Your task to perform on an android device: install app "Flipkart Online Shopping App" Image 0: 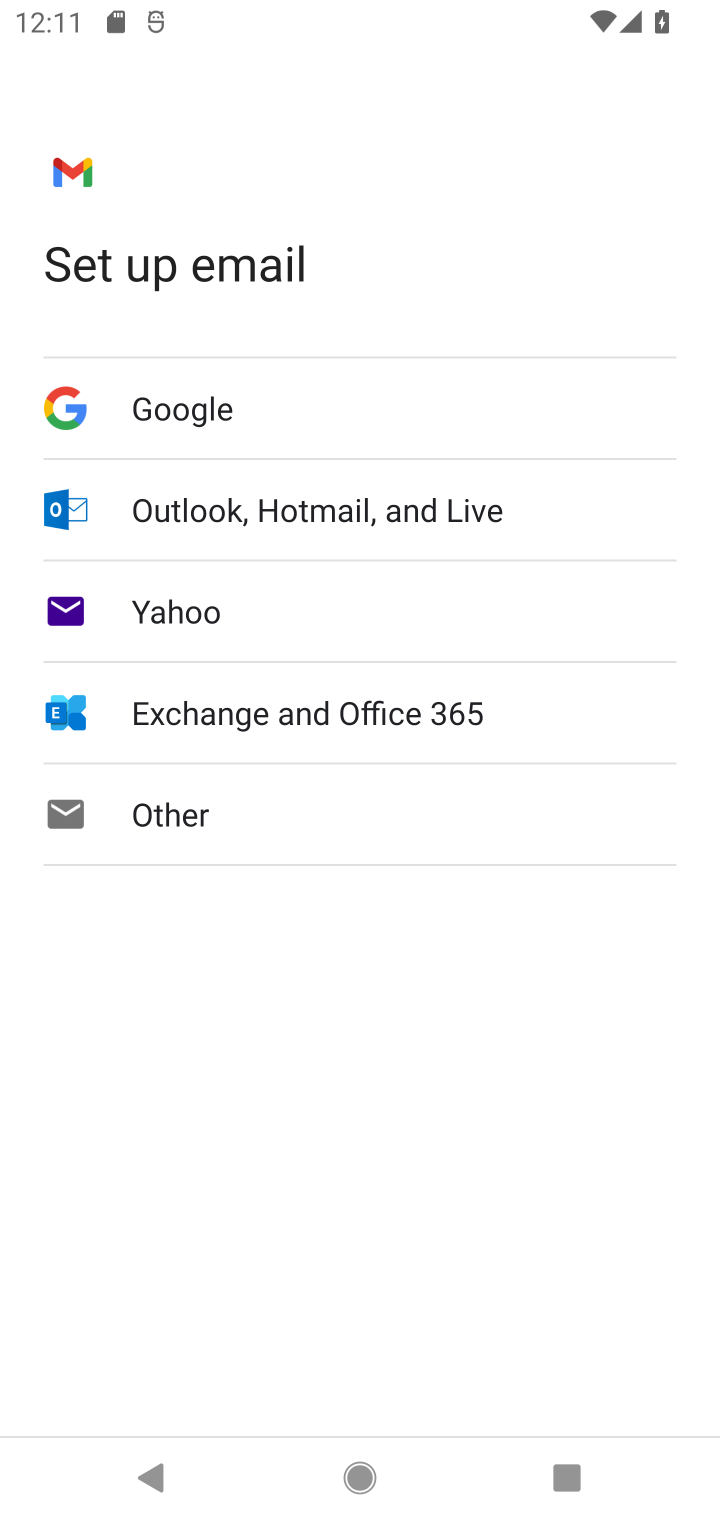
Step 0: press home button
Your task to perform on an android device: install app "Flipkart Online Shopping App" Image 1: 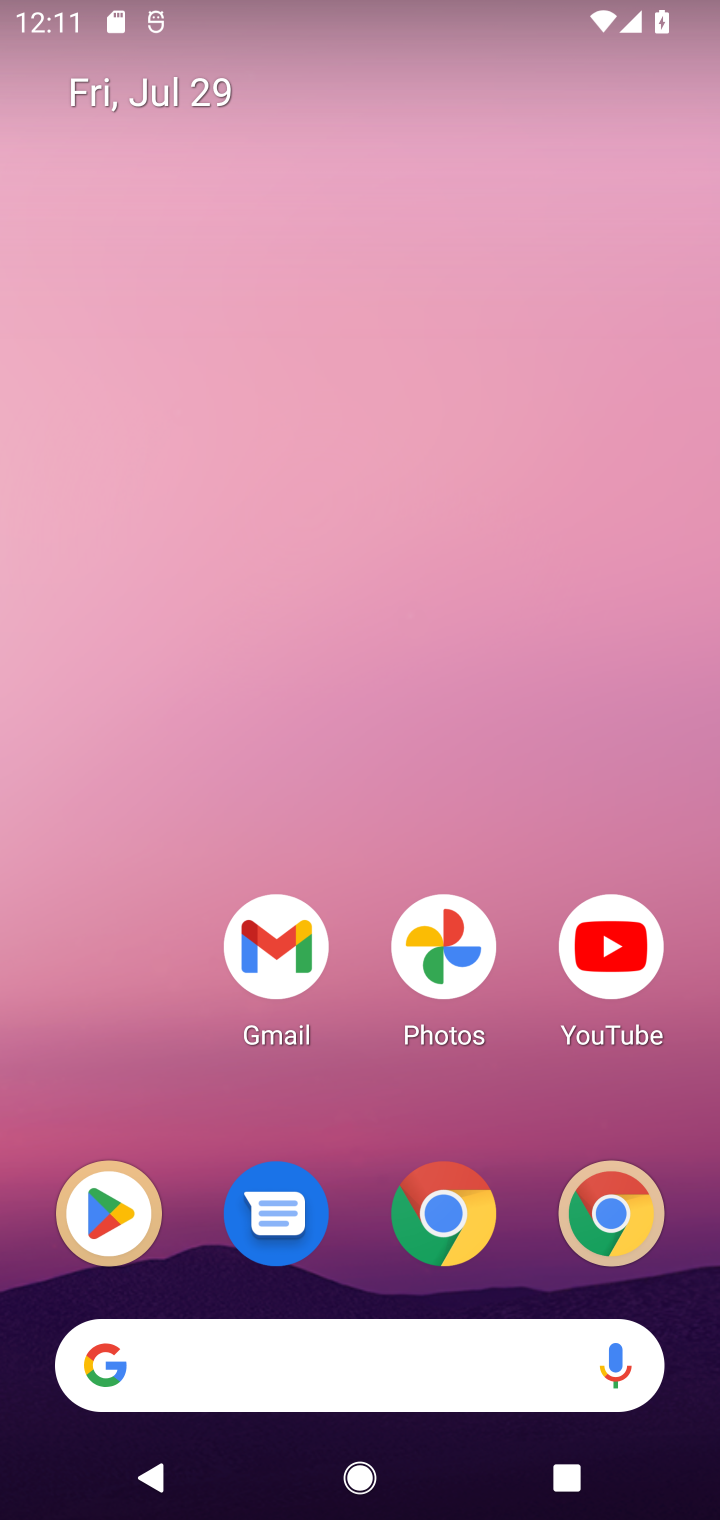
Step 1: drag from (444, 1495) to (444, 422)
Your task to perform on an android device: install app "Flipkart Online Shopping App" Image 2: 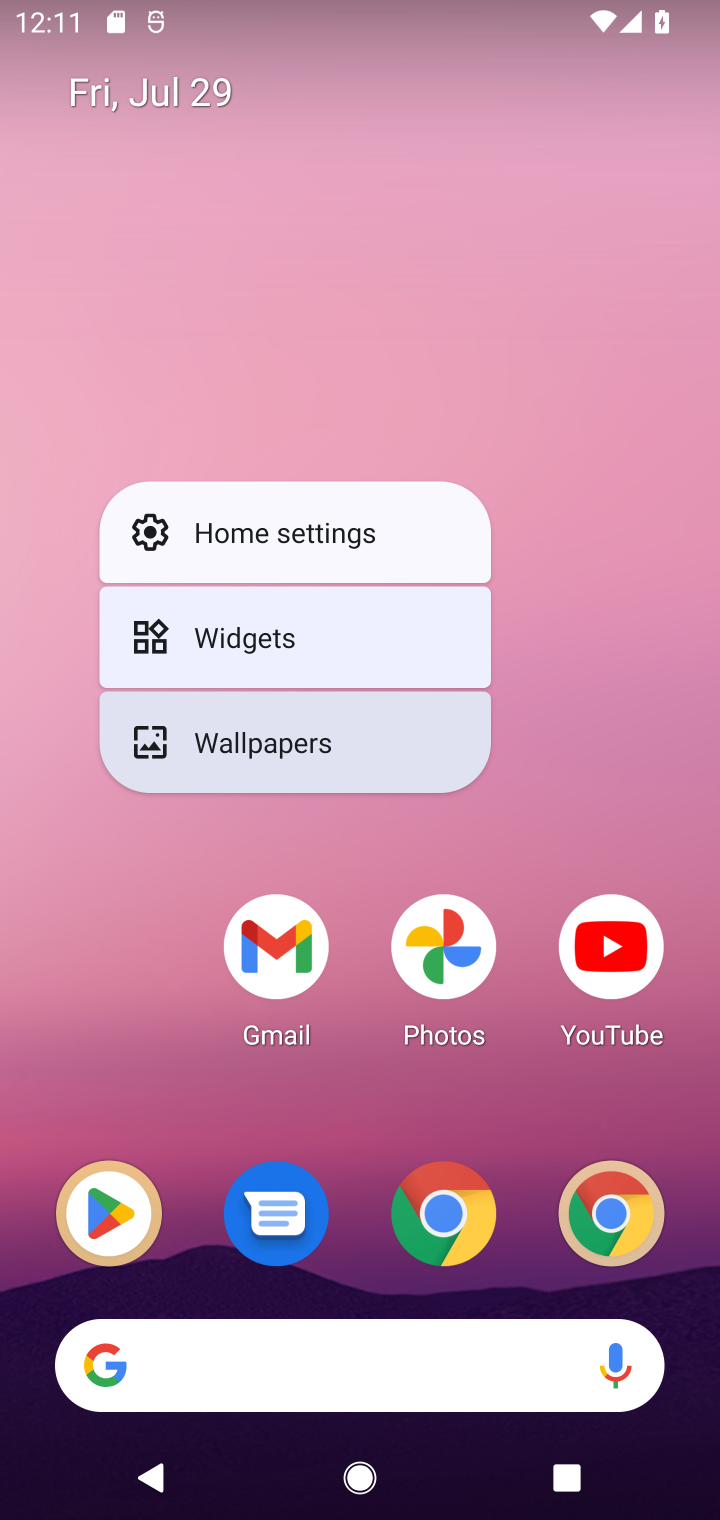
Step 2: click (562, 498)
Your task to perform on an android device: install app "Flipkart Online Shopping App" Image 3: 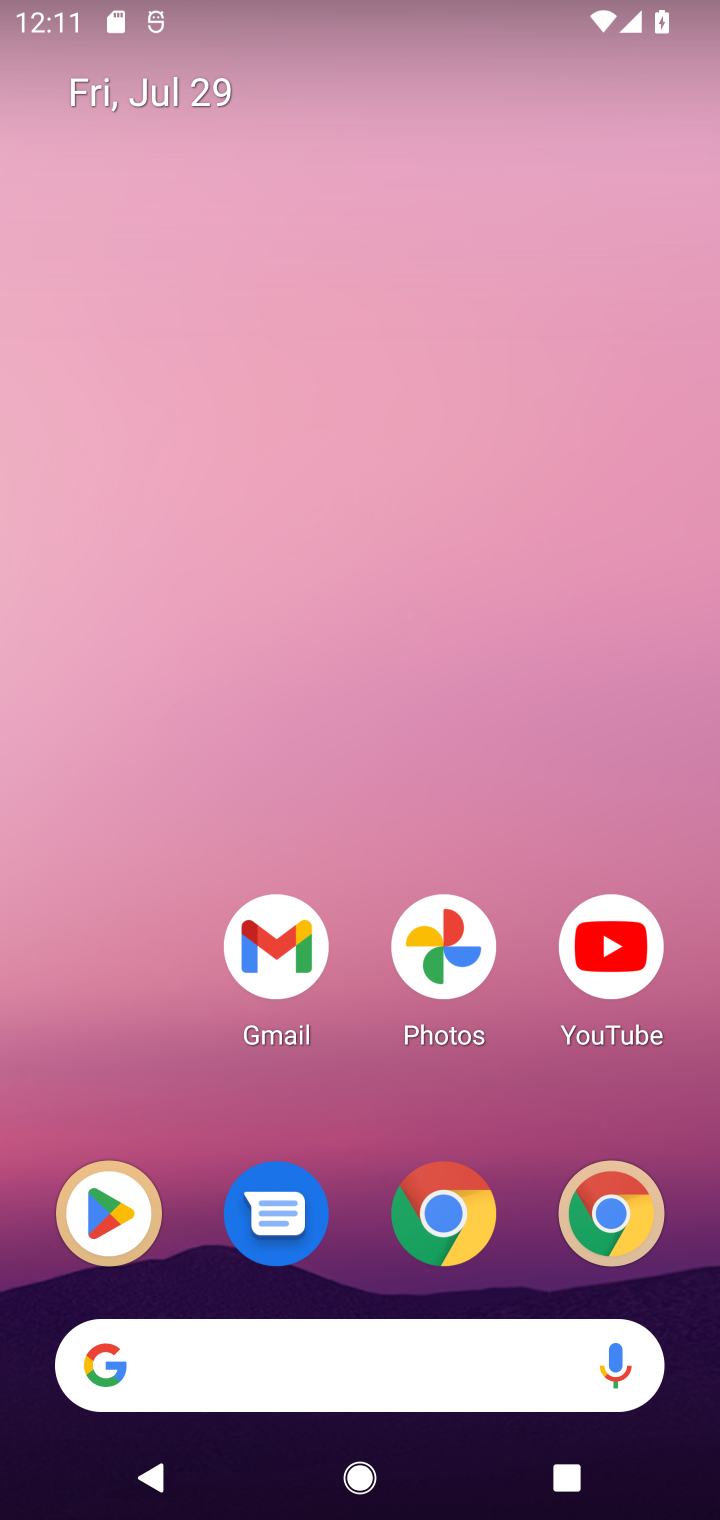
Step 3: drag from (409, 1375) to (409, 395)
Your task to perform on an android device: install app "Flipkart Online Shopping App" Image 4: 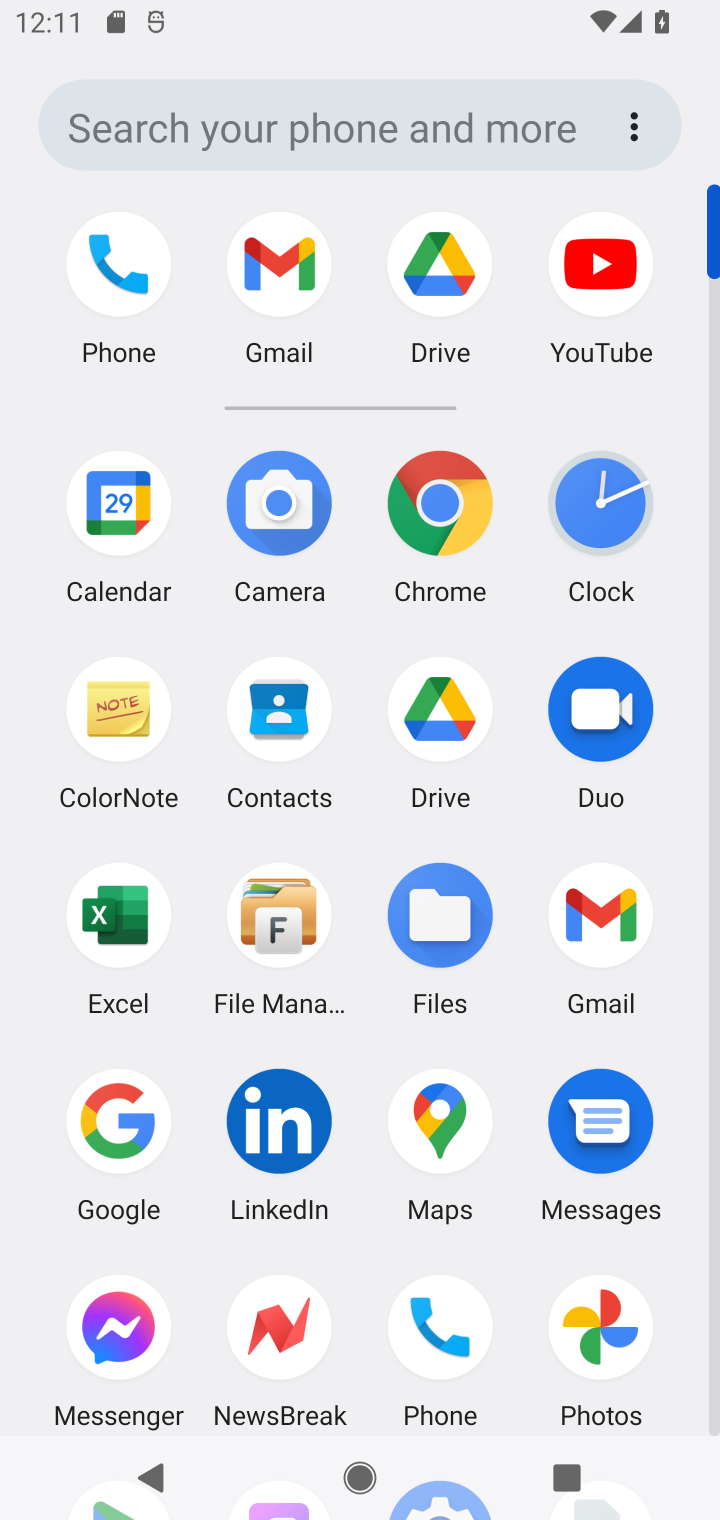
Step 4: click (88, 1485)
Your task to perform on an android device: install app "Flipkart Online Shopping App" Image 5: 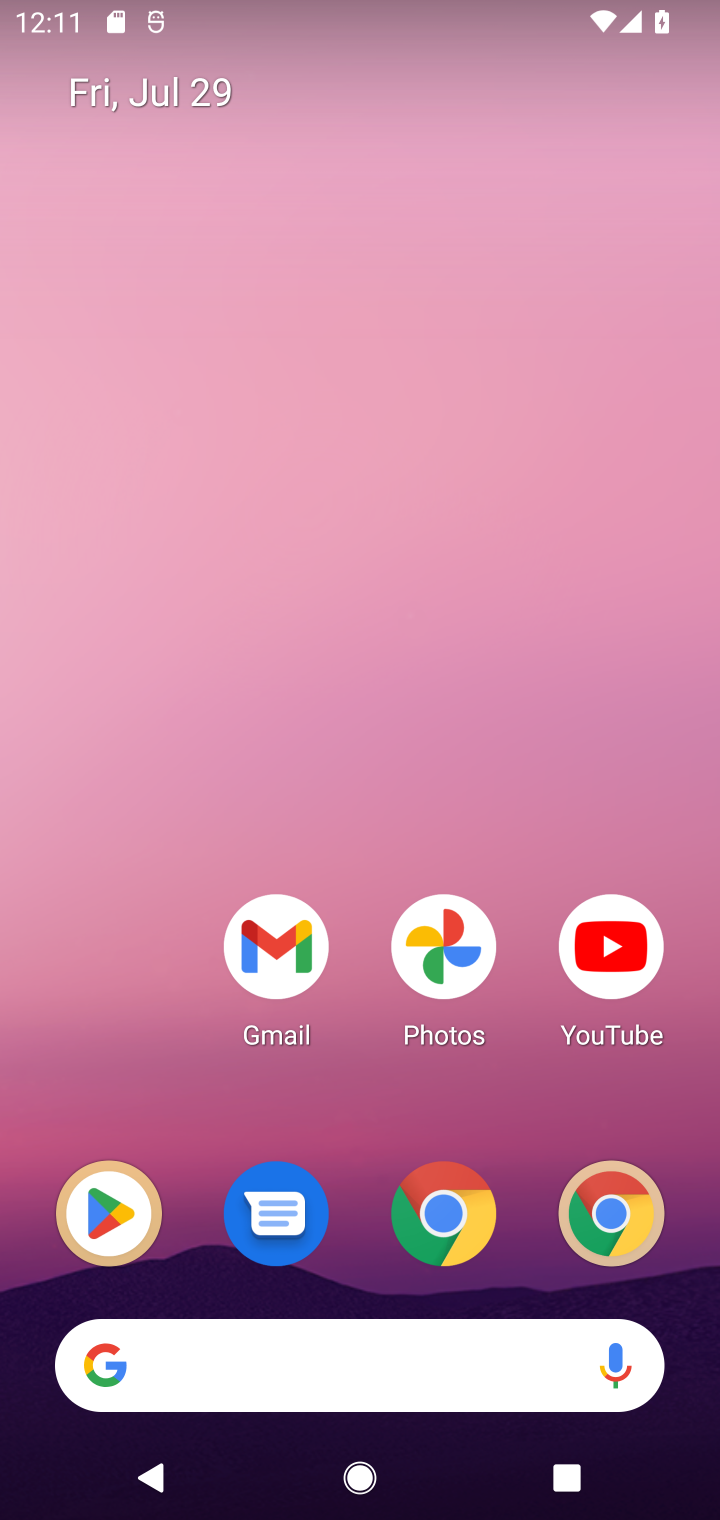
Step 5: click (413, 1425)
Your task to perform on an android device: install app "Flipkart Online Shopping App" Image 6: 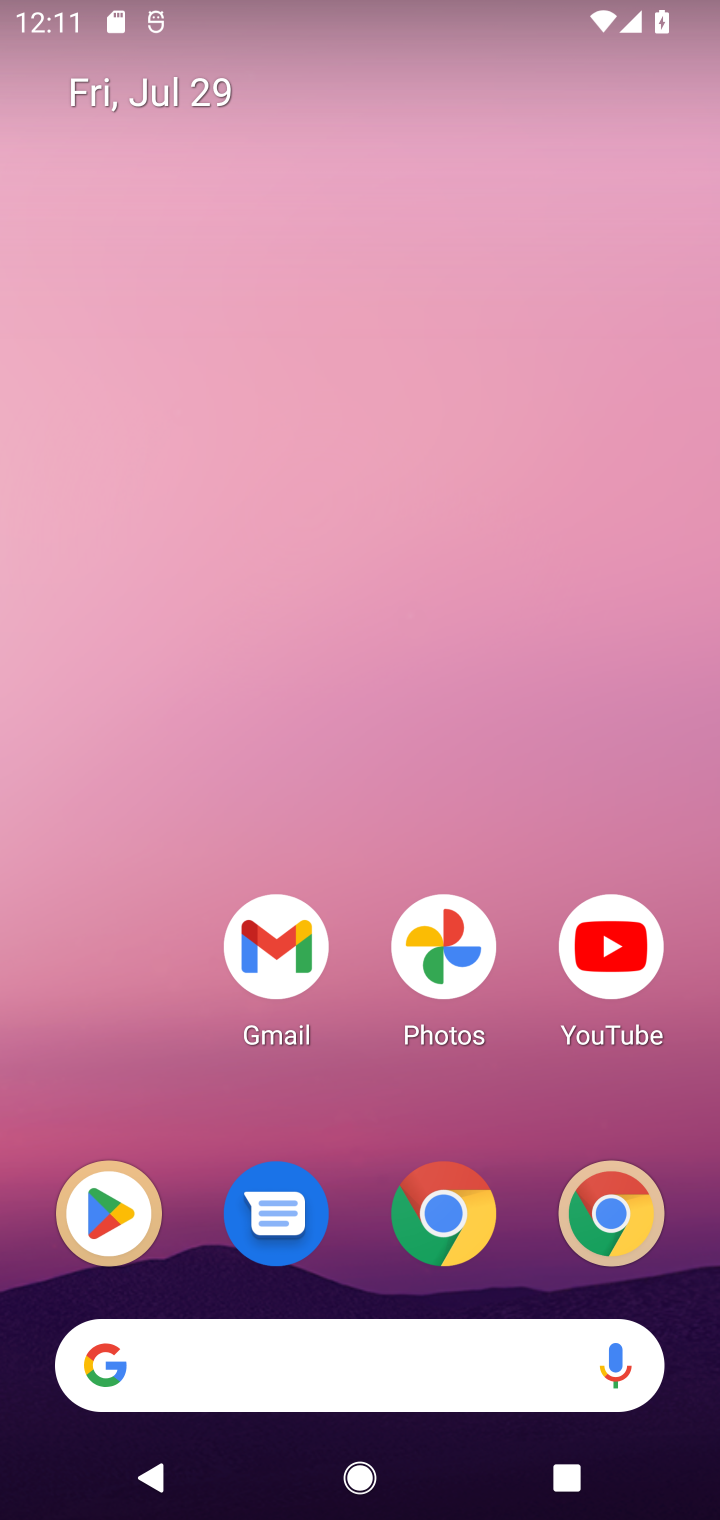
Step 6: drag from (410, 269) to (410, 159)
Your task to perform on an android device: install app "Flipkart Online Shopping App" Image 7: 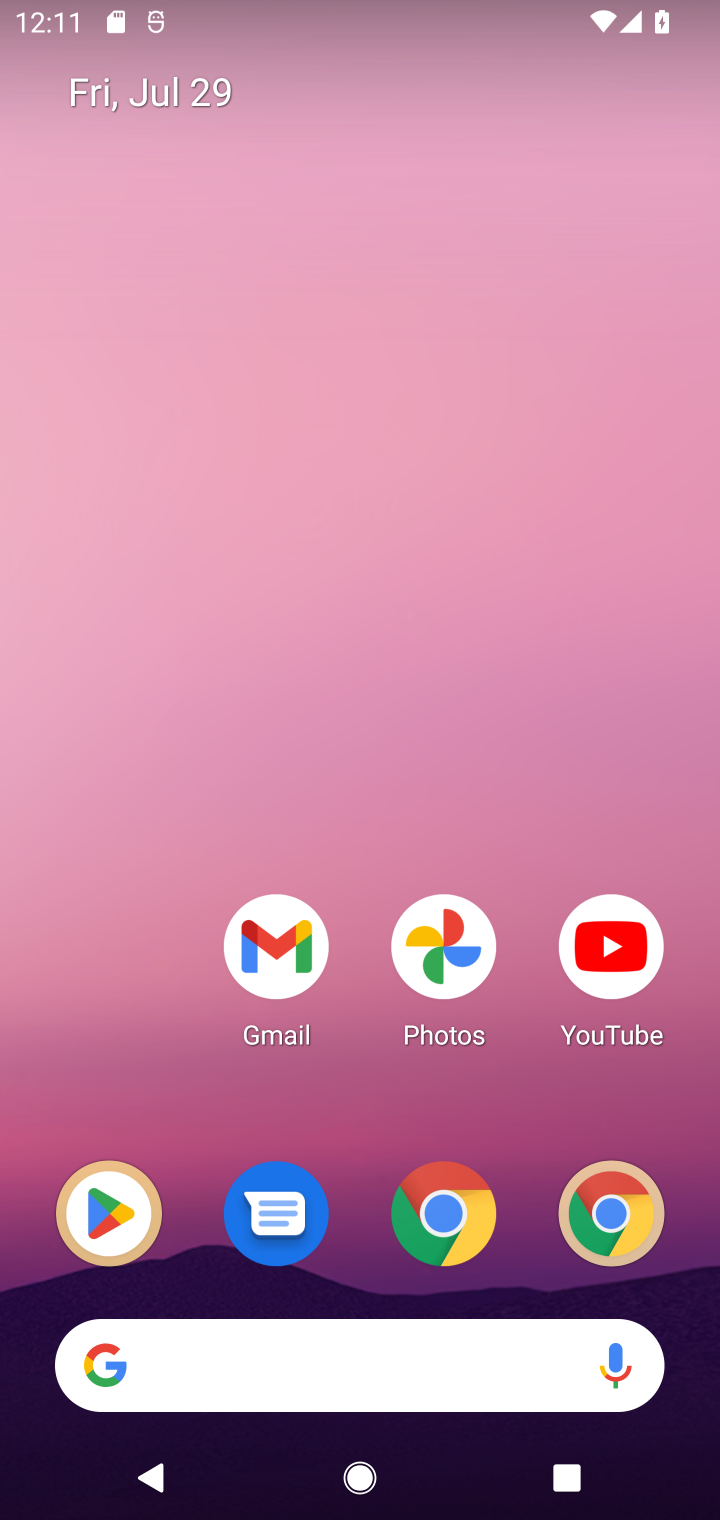
Step 7: drag from (412, 1295) to (366, 331)
Your task to perform on an android device: install app "Flipkart Online Shopping App" Image 8: 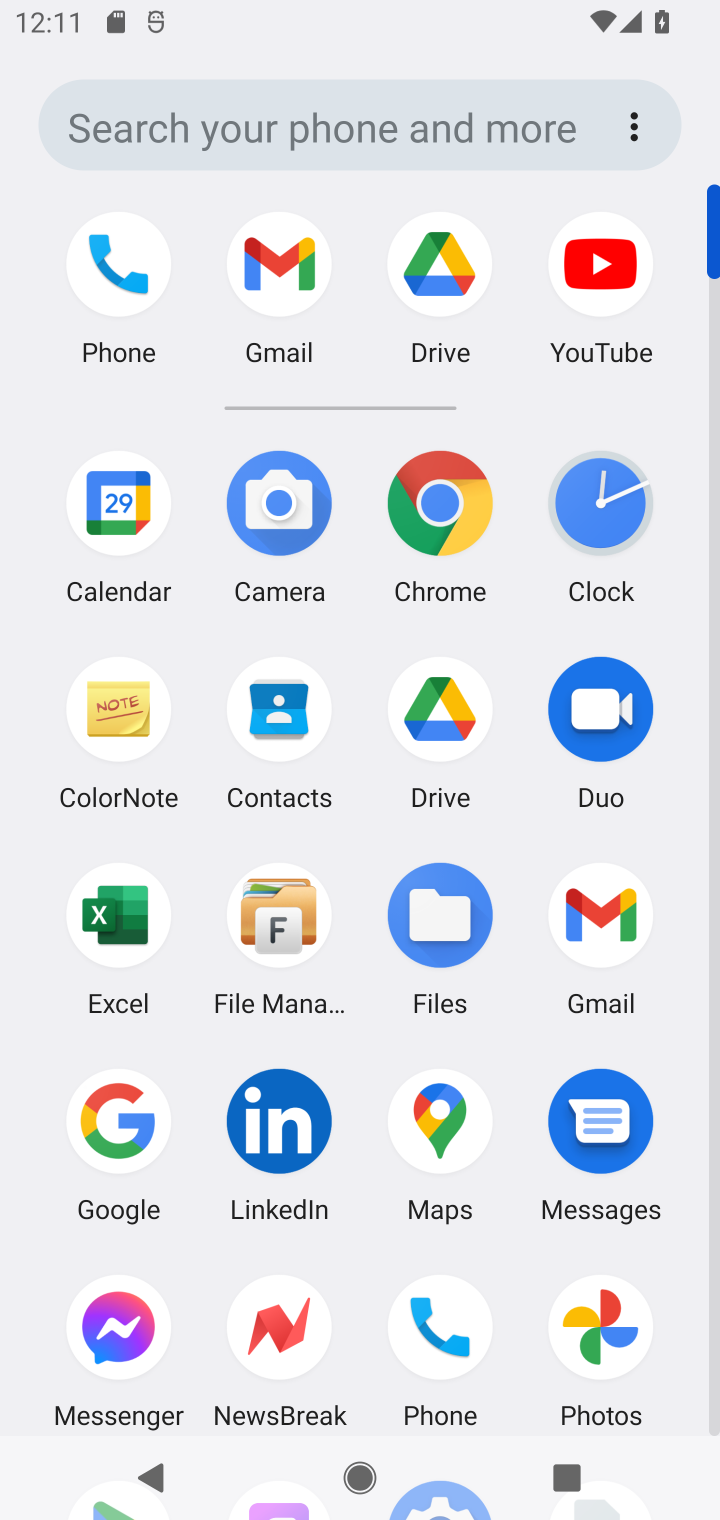
Step 8: drag from (367, 1276) to (357, 553)
Your task to perform on an android device: install app "Flipkart Online Shopping App" Image 9: 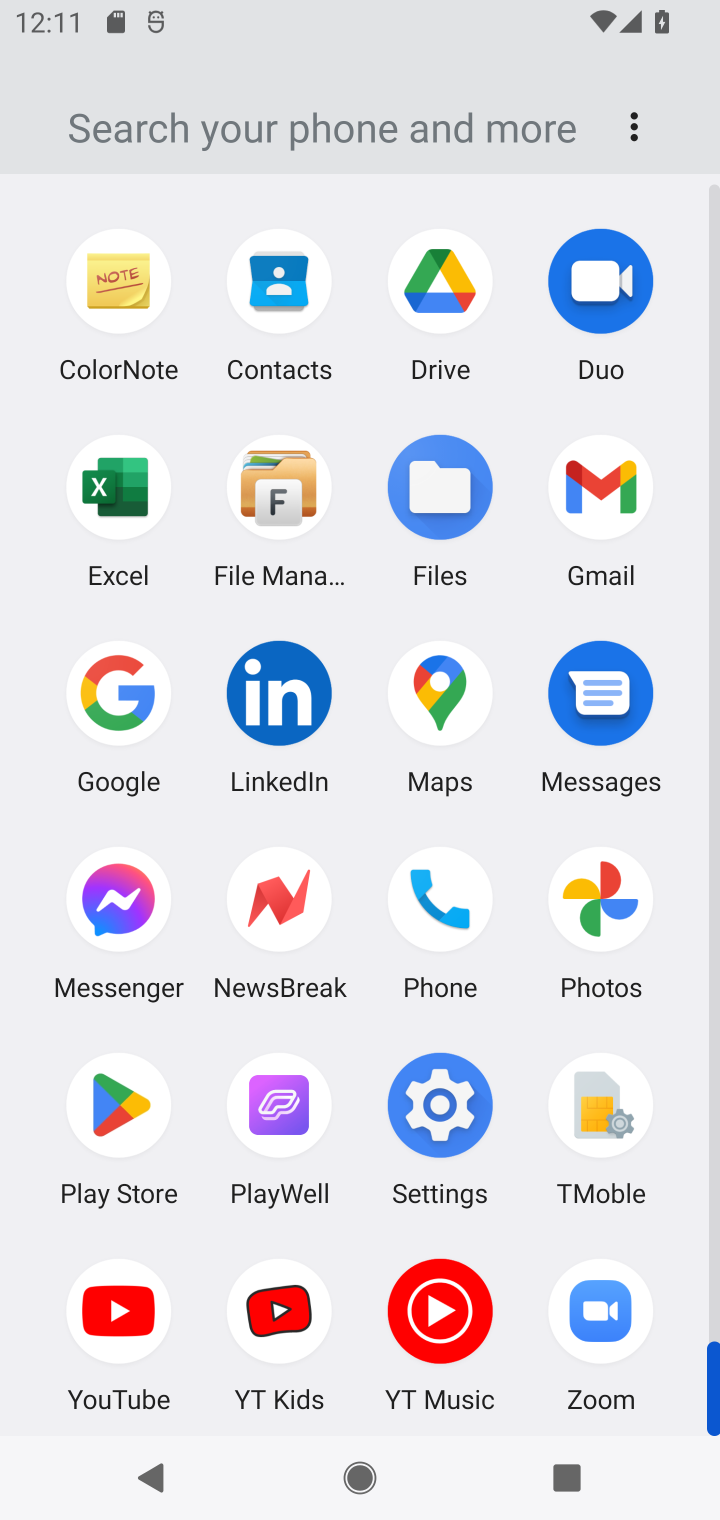
Step 9: click (111, 1126)
Your task to perform on an android device: install app "Flipkart Online Shopping App" Image 10: 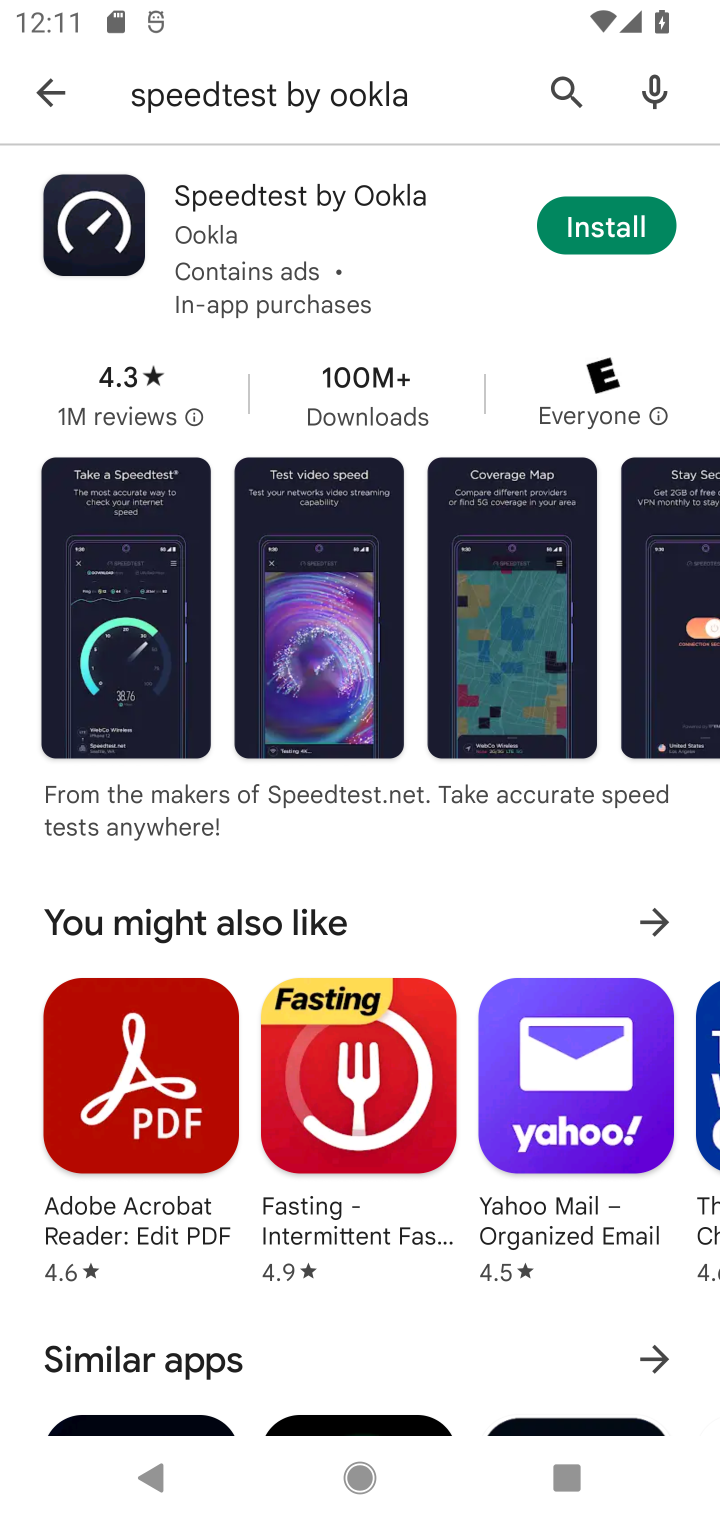
Step 10: click (559, 79)
Your task to perform on an android device: install app "Flipkart Online Shopping App" Image 11: 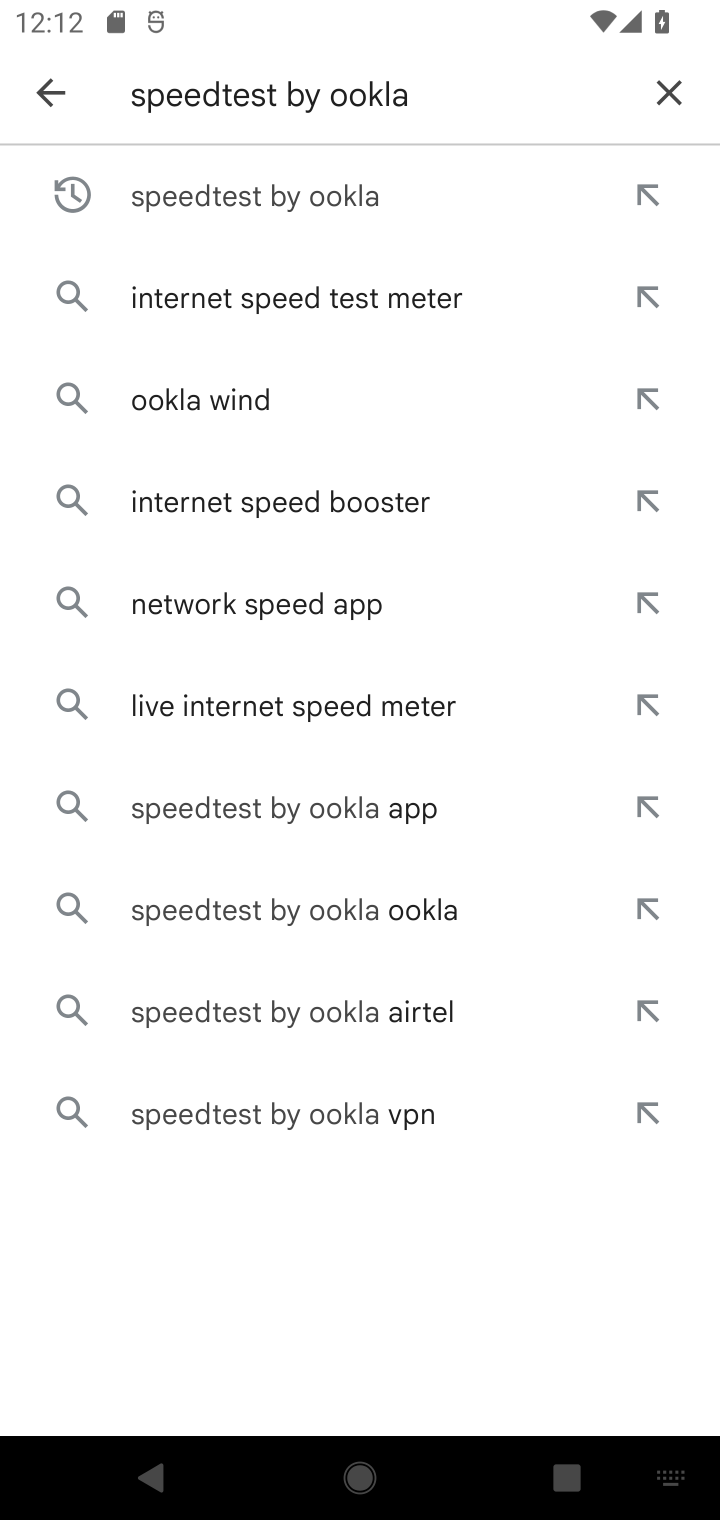
Step 11: click (667, 81)
Your task to perform on an android device: install app "Flipkart Online Shopping App" Image 12: 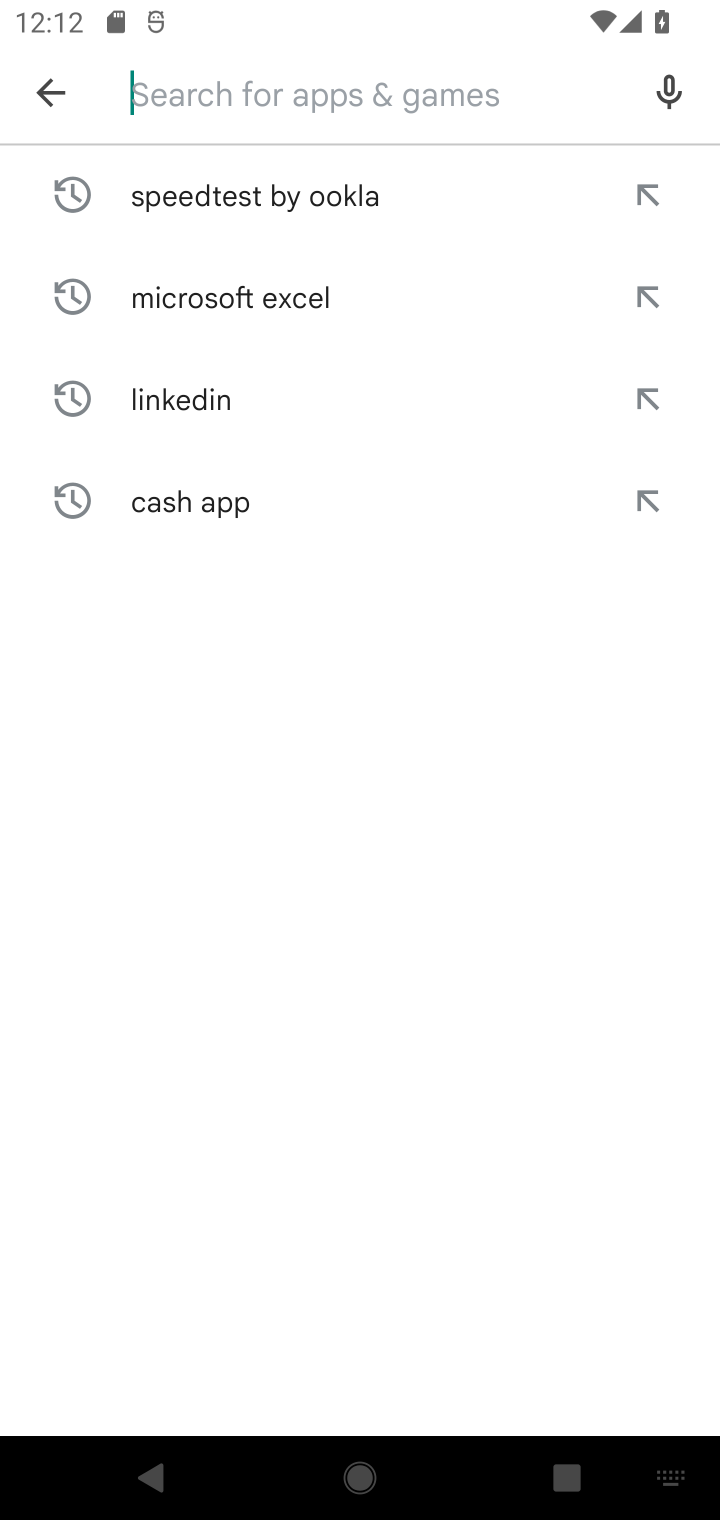
Step 12: type "lfipkart Online Shopping Ap"
Your task to perform on an android device: install app "Flipkart Online Shopping App" Image 13: 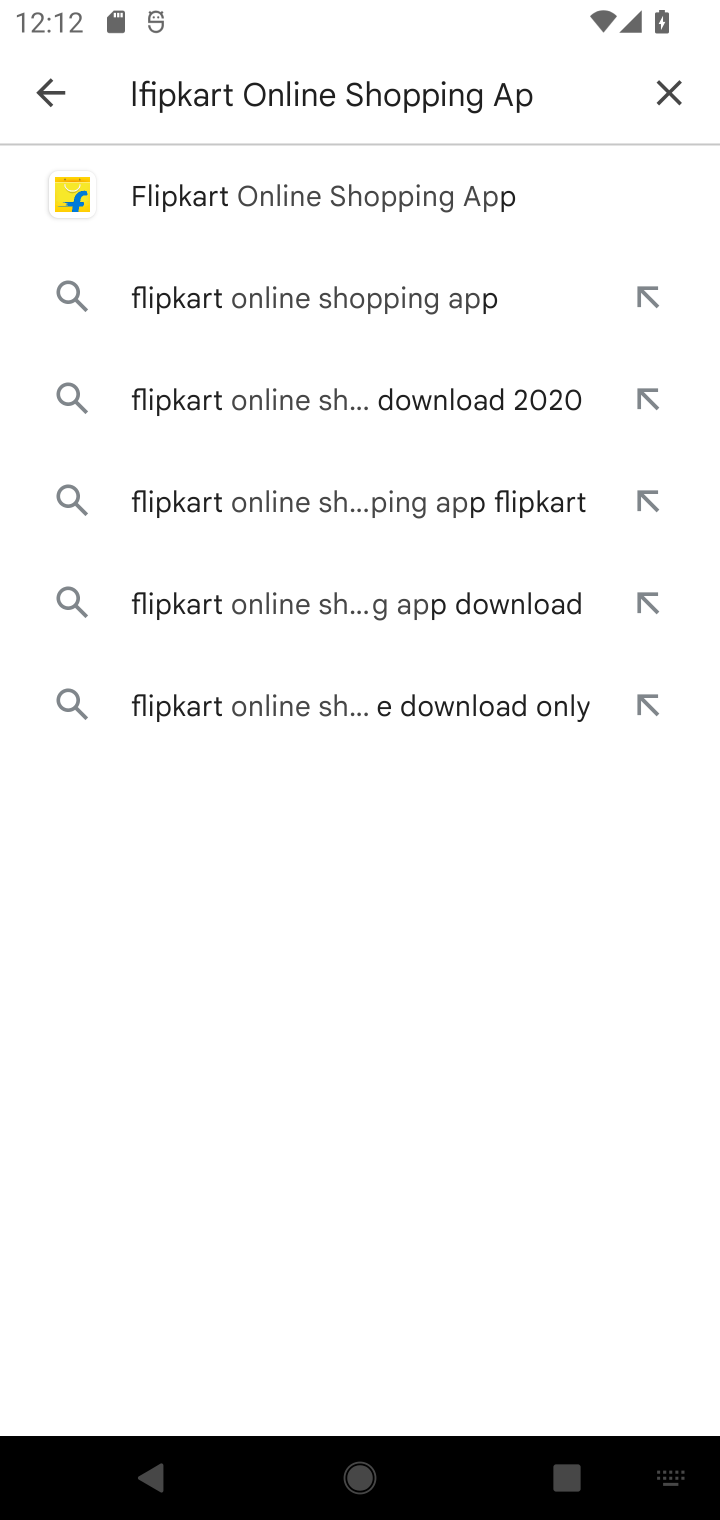
Step 13: click (438, 201)
Your task to perform on an android device: install app "Flipkart Online Shopping App" Image 14: 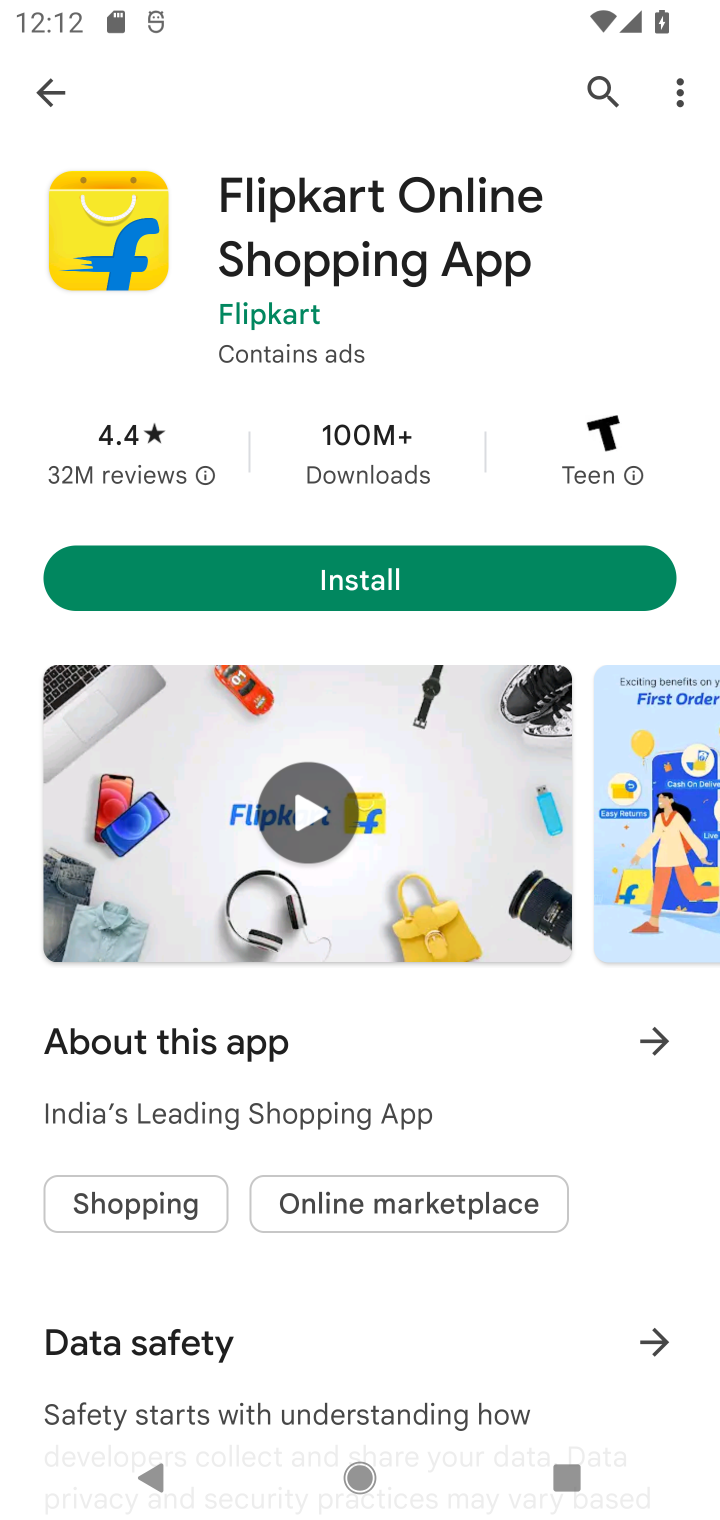
Step 14: click (368, 595)
Your task to perform on an android device: install app "Flipkart Online Shopping App" Image 15: 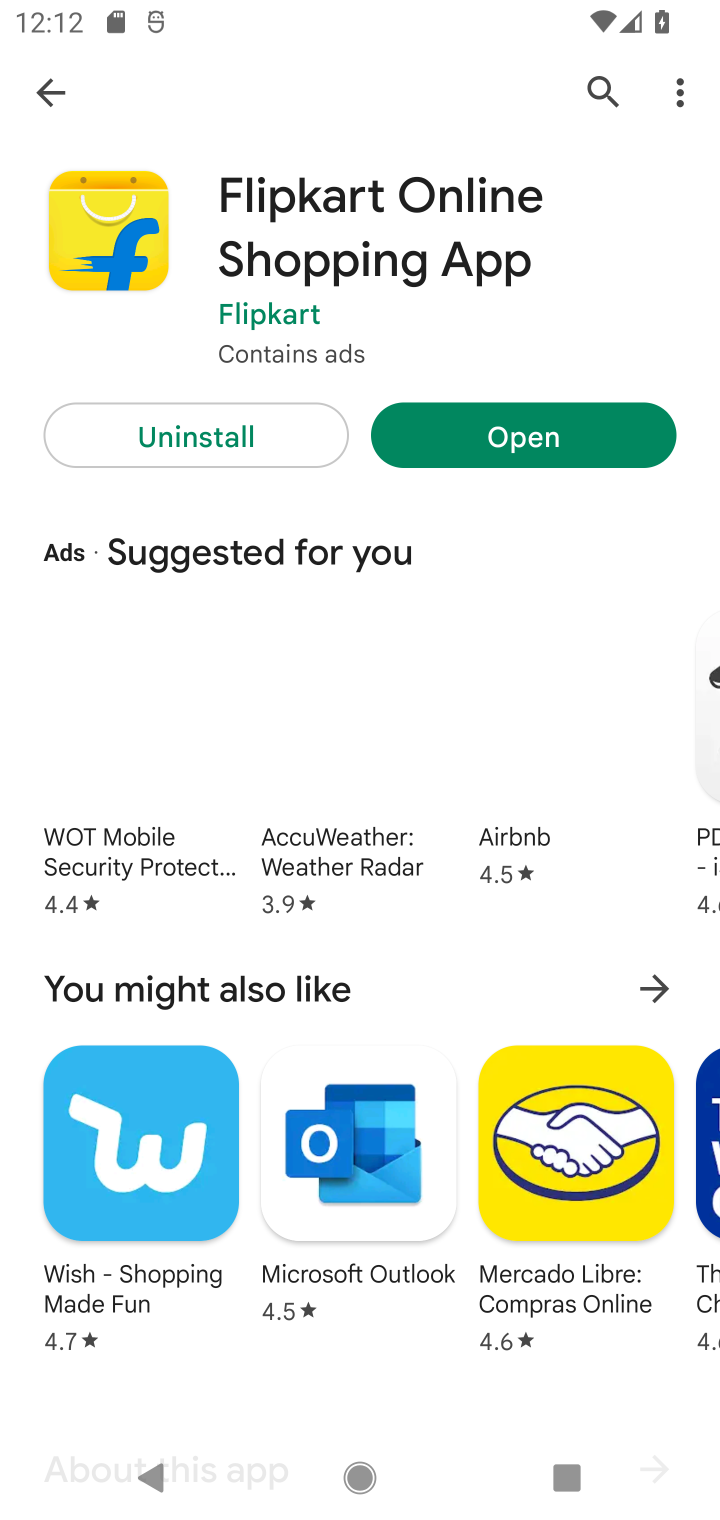
Step 15: task complete